Your task to perform on an android device: Search for sushi restaurants on Maps Image 0: 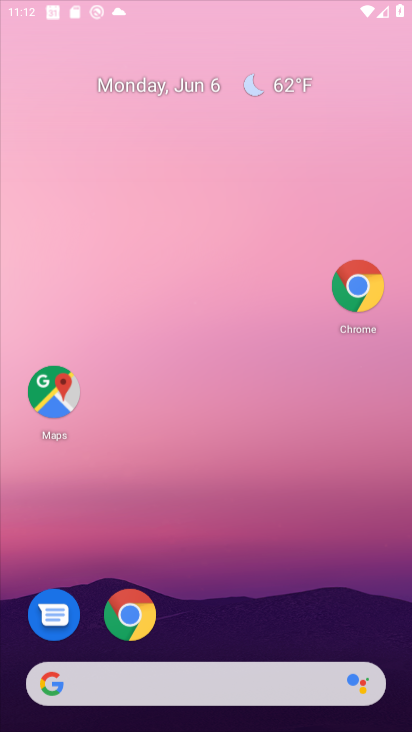
Step 0: click (96, 100)
Your task to perform on an android device: Search for sushi restaurants on Maps Image 1: 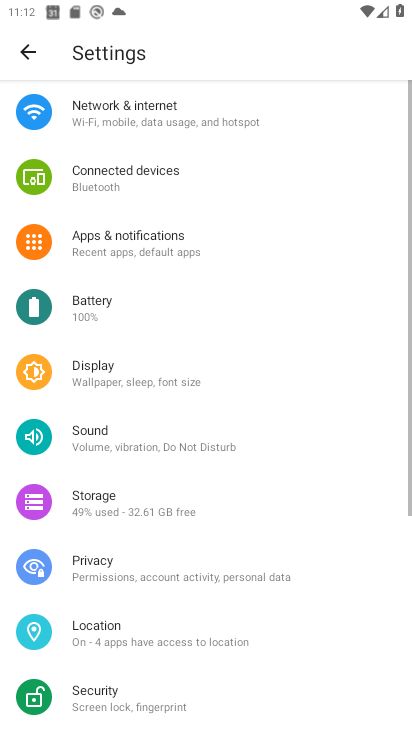
Step 1: click (25, 56)
Your task to perform on an android device: Search for sushi restaurants on Maps Image 2: 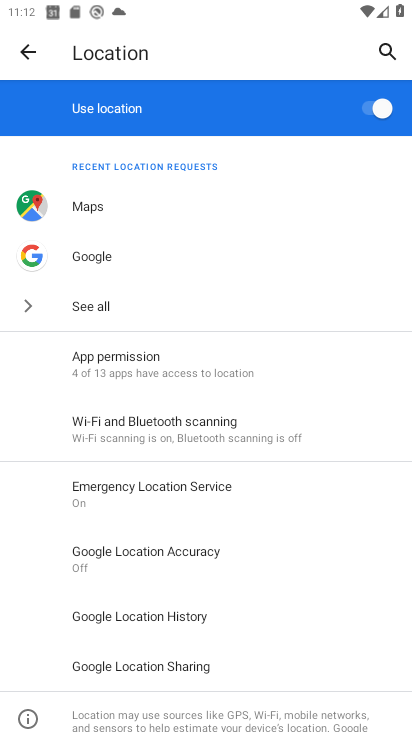
Step 2: click (24, 45)
Your task to perform on an android device: Search for sushi restaurants on Maps Image 3: 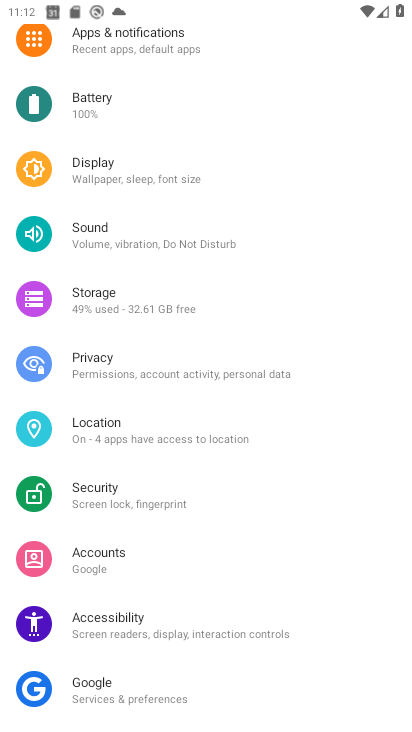
Step 3: press back button
Your task to perform on an android device: Search for sushi restaurants on Maps Image 4: 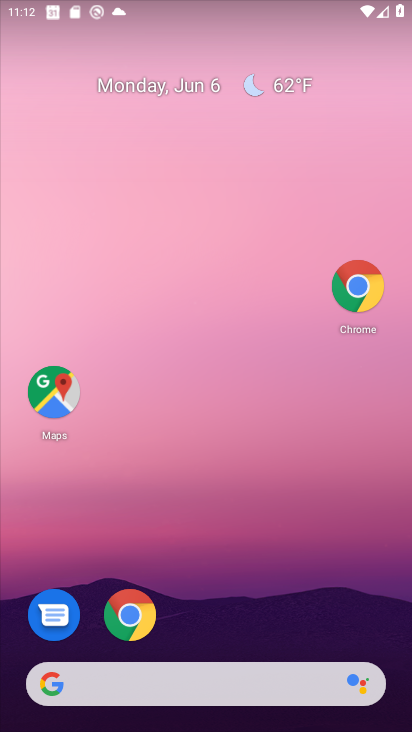
Step 4: drag from (223, 671) to (89, 17)
Your task to perform on an android device: Search for sushi restaurants on Maps Image 5: 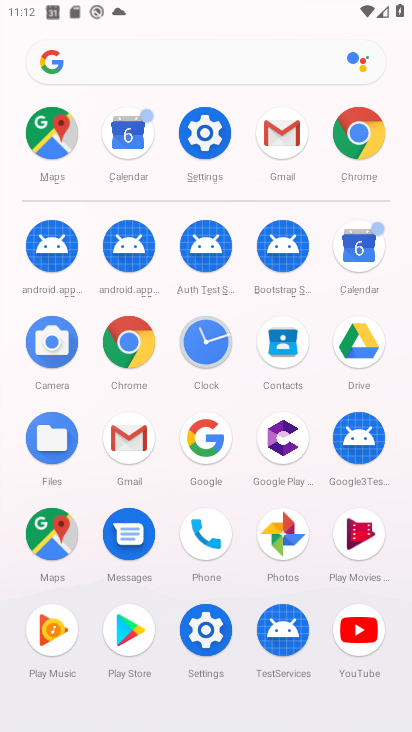
Step 5: click (46, 135)
Your task to perform on an android device: Search for sushi restaurants on Maps Image 6: 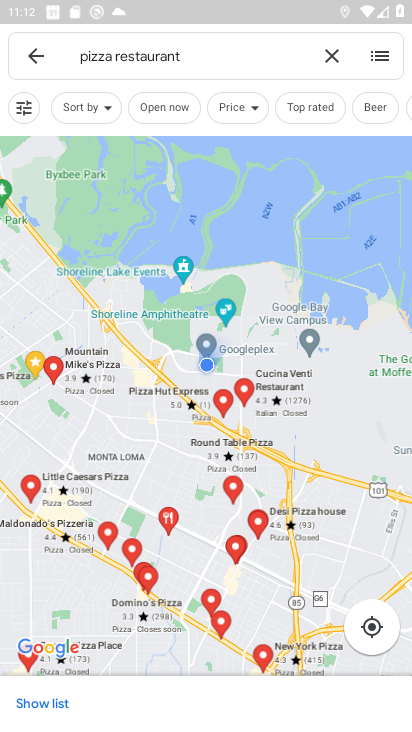
Step 6: click (323, 52)
Your task to perform on an android device: Search for sushi restaurants on Maps Image 7: 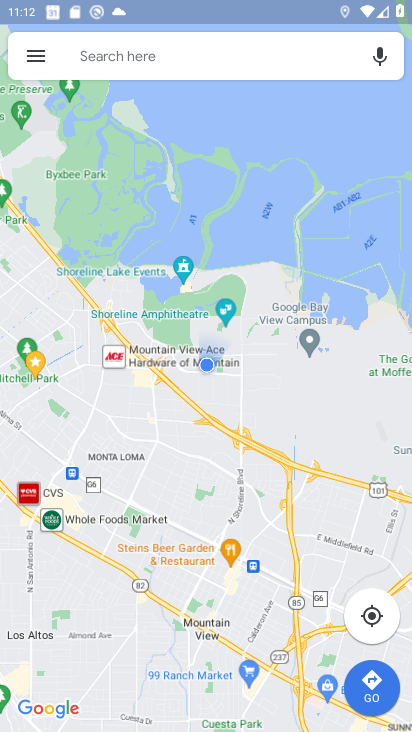
Step 7: type "s"
Your task to perform on an android device: Search for sushi restaurants on Maps Image 8: 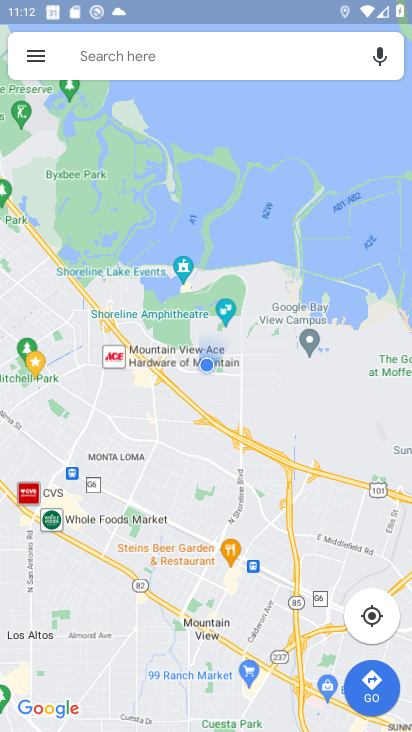
Step 8: click (95, 53)
Your task to perform on an android device: Search for sushi restaurants on Maps Image 9: 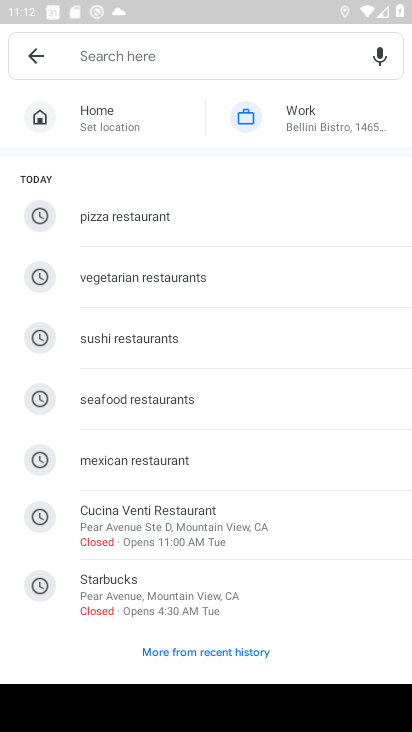
Step 9: click (125, 341)
Your task to perform on an android device: Search for sushi restaurants on Maps Image 10: 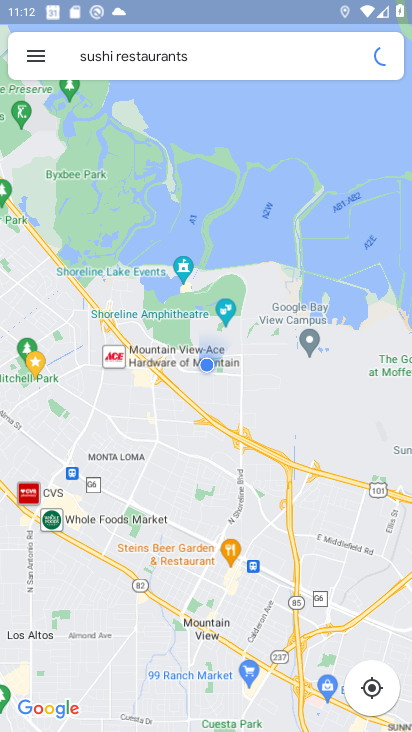
Step 10: task complete